Your task to perform on an android device: What is the recent news? Image 0: 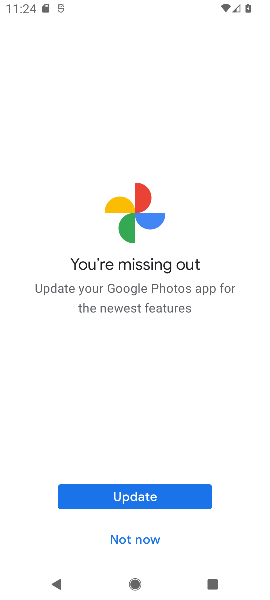
Step 0: press home button
Your task to perform on an android device: What is the recent news? Image 1: 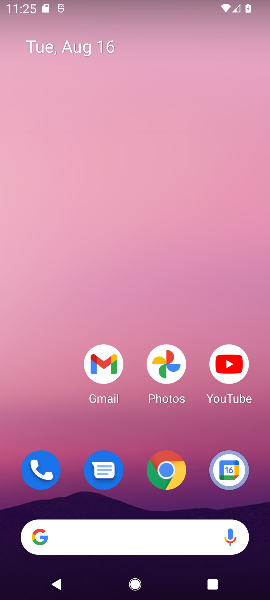
Step 1: click (159, 538)
Your task to perform on an android device: What is the recent news? Image 2: 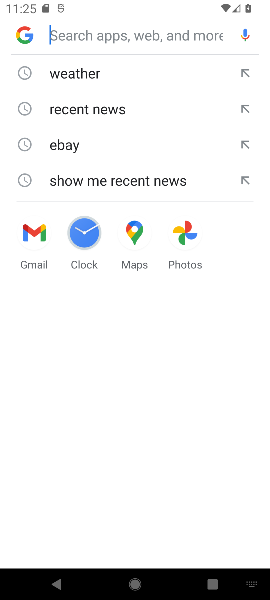
Step 2: click (114, 105)
Your task to perform on an android device: What is the recent news? Image 3: 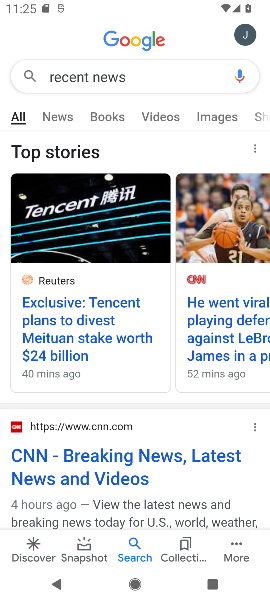
Step 3: click (57, 115)
Your task to perform on an android device: What is the recent news? Image 4: 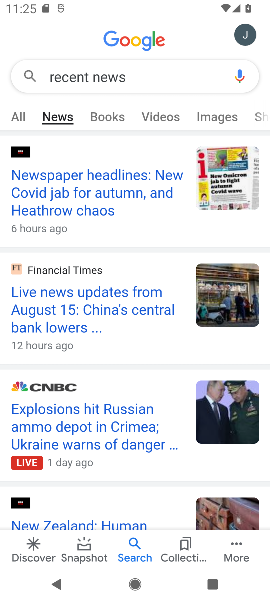
Step 4: task complete